Your task to perform on an android device: Open Google Image 0: 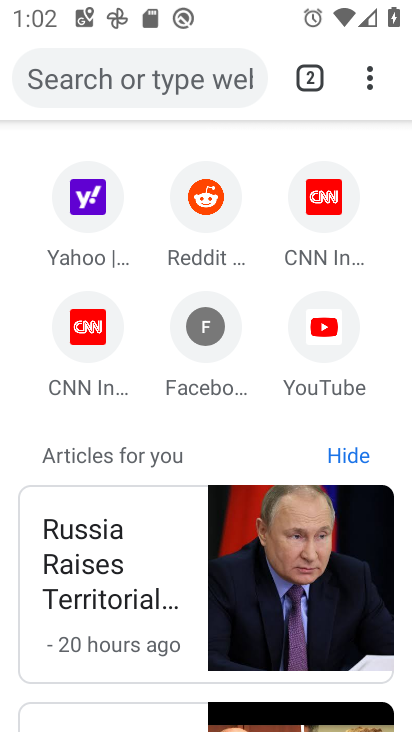
Step 0: press home button
Your task to perform on an android device: Open Google Image 1: 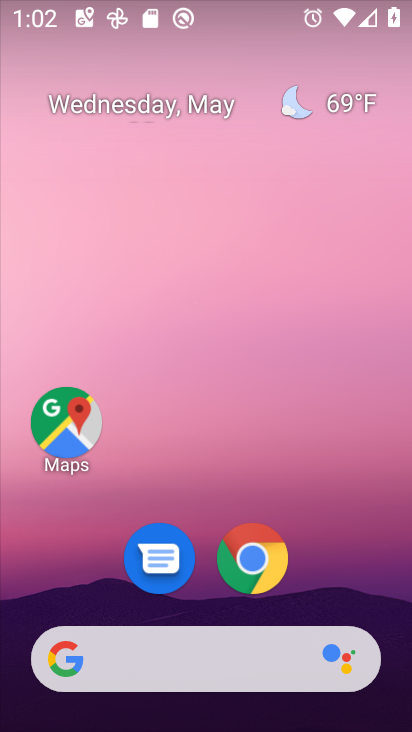
Step 1: drag from (384, 632) to (338, 62)
Your task to perform on an android device: Open Google Image 2: 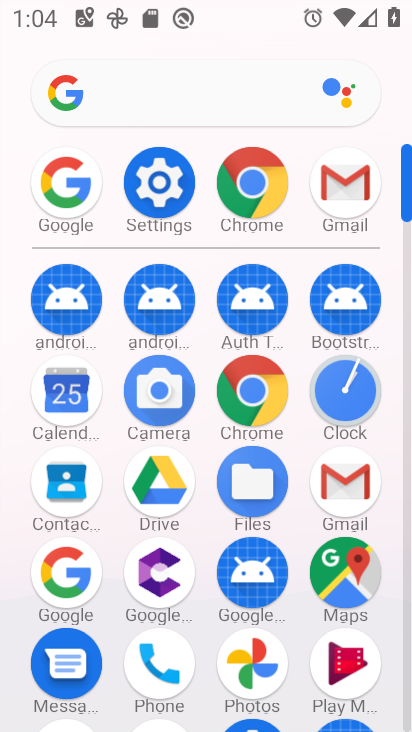
Step 2: click (71, 578)
Your task to perform on an android device: Open Google Image 3: 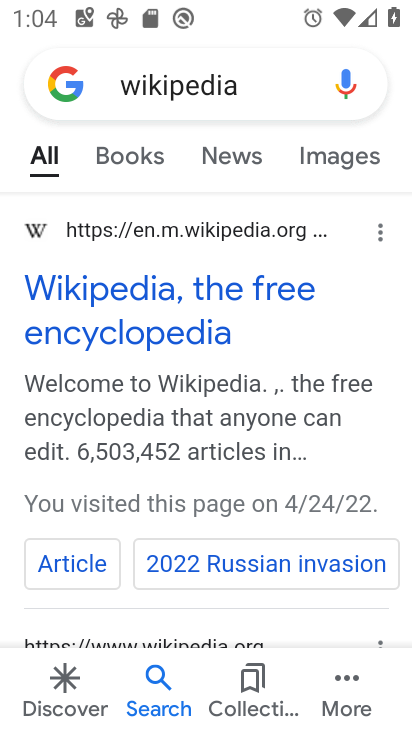
Step 3: task complete